Your task to perform on an android device: Open wifi settings Image 0: 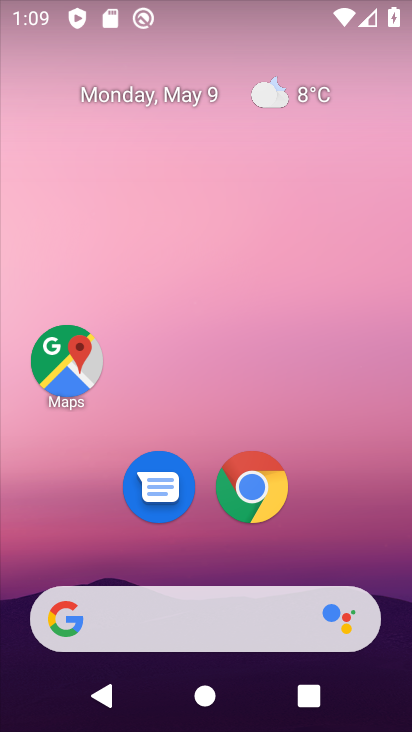
Step 0: drag from (348, 8) to (357, 627)
Your task to perform on an android device: Open wifi settings Image 1: 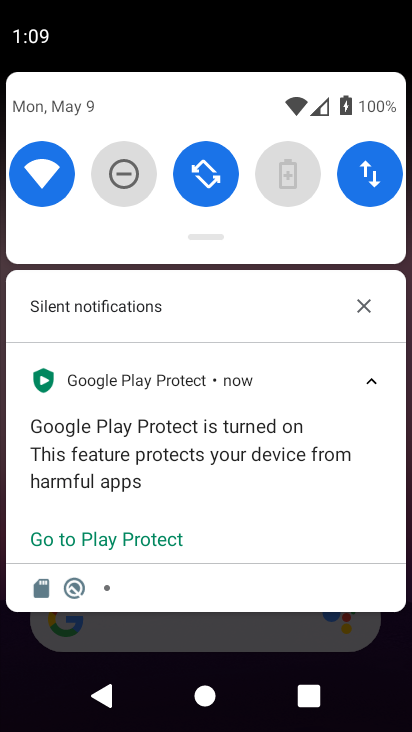
Step 1: click (38, 179)
Your task to perform on an android device: Open wifi settings Image 2: 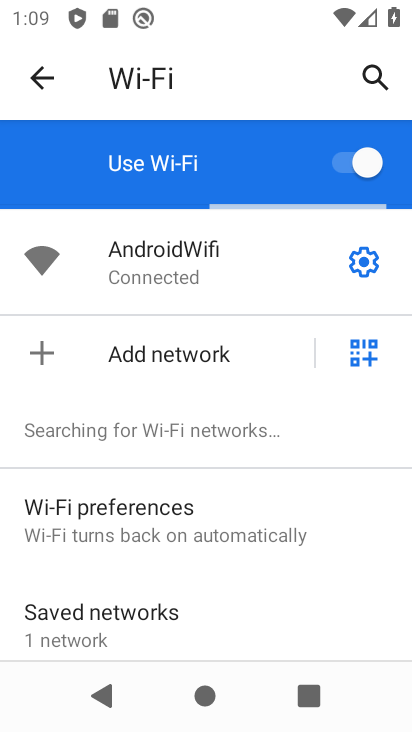
Step 2: task complete